Your task to perform on an android device: What's the weather today? Image 0: 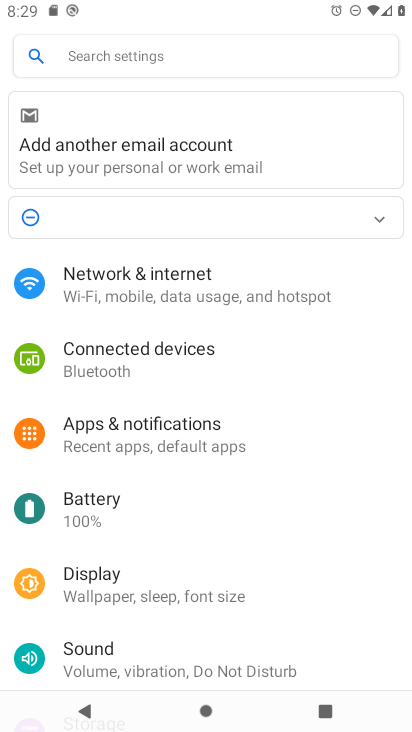
Step 0: press home button
Your task to perform on an android device: What's the weather today? Image 1: 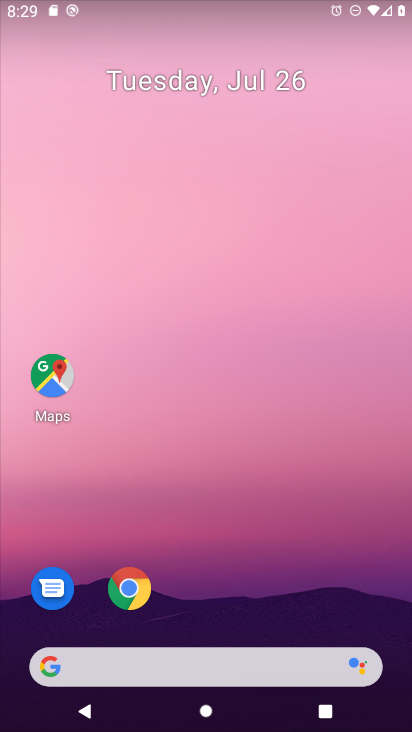
Step 1: drag from (221, 593) to (258, 246)
Your task to perform on an android device: What's the weather today? Image 2: 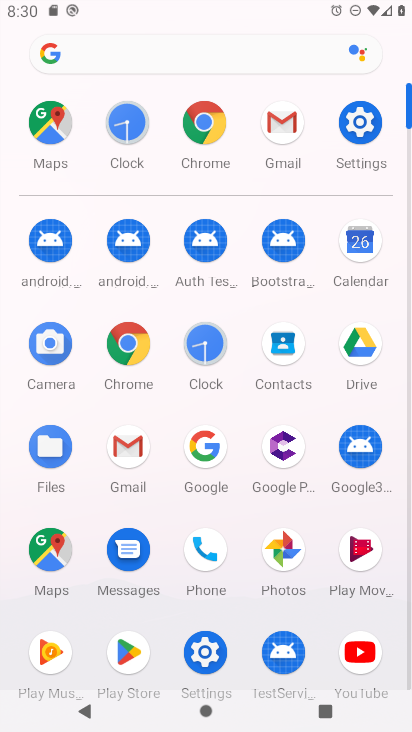
Step 2: click (209, 449)
Your task to perform on an android device: What's the weather today? Image 3: 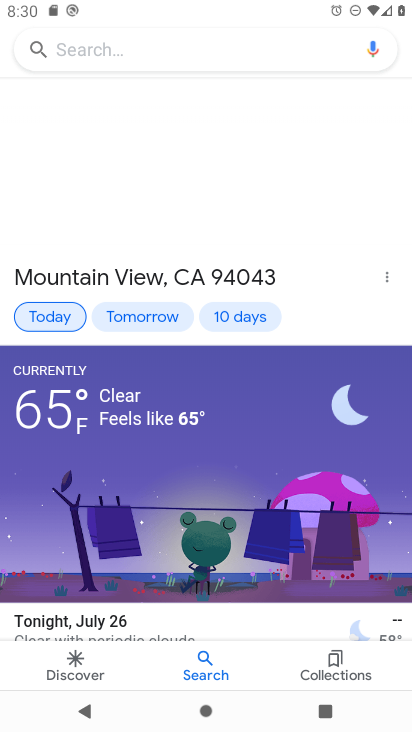
Step 3: task complete